Your task to perform on an android device: open a new tab in the chrome app Image 0: 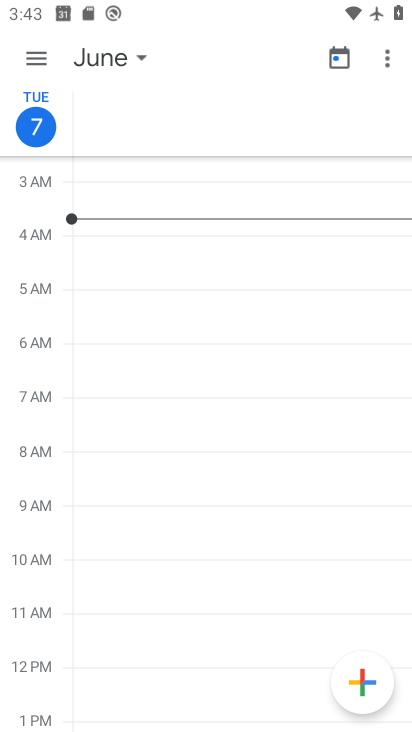
Step 0: press home button
Your task to perform on an android device: open a new tab in the chrome app Image 1: 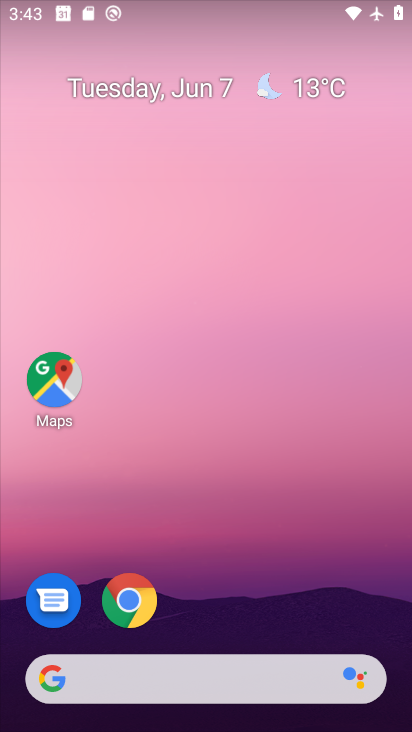
Step 1: drag from (316, 574) to (220, 187)
Your task to perform on an android device: open a new tab in the chrome app Image 2: 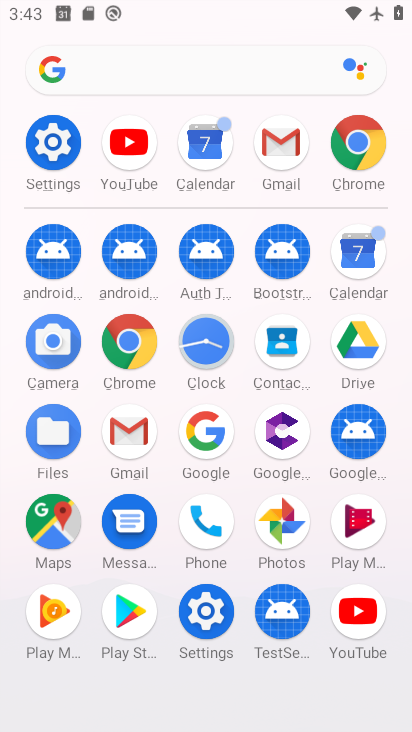
Step 2: click (136, 339)
Your task to perform on an android device: open a new tab in the chrome app Image 3: 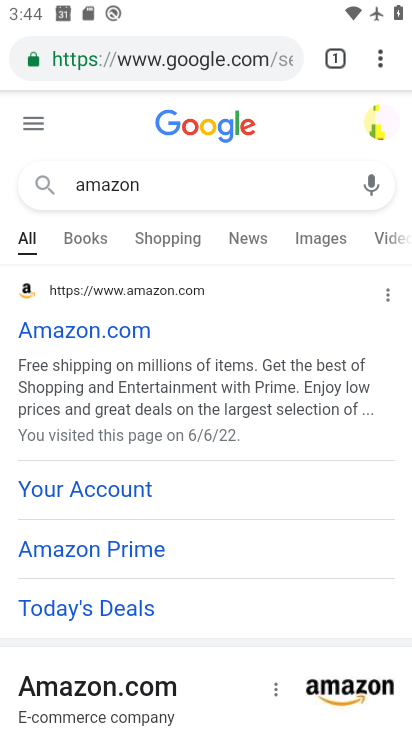
Step 3: task complete